Your task to perform on an android device: Open Google Maps Image 0: 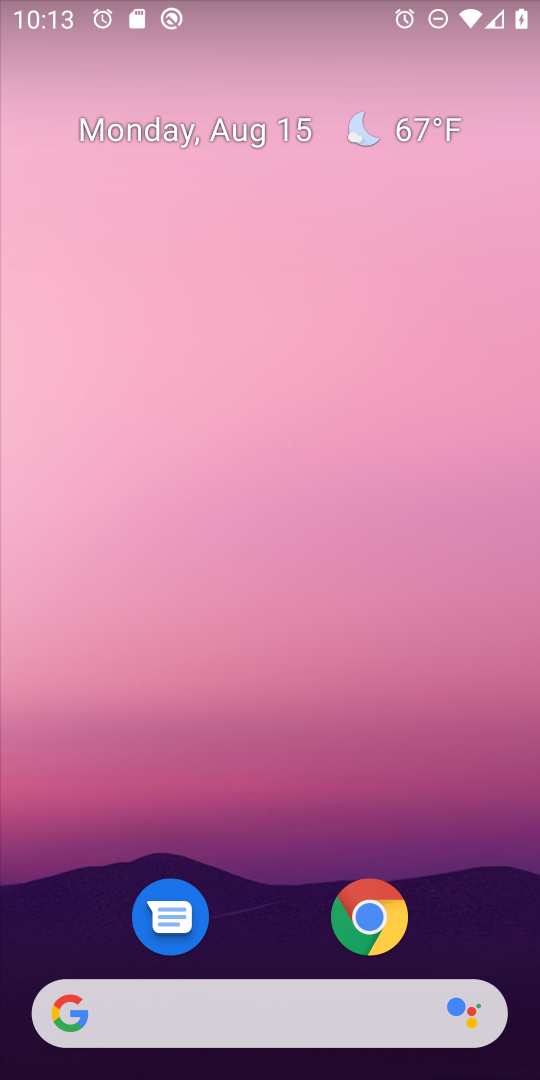
Step 0: drag from (268, 862) to (315, 0)
Your task to perform on an android device: Open Google Maps Image 1: 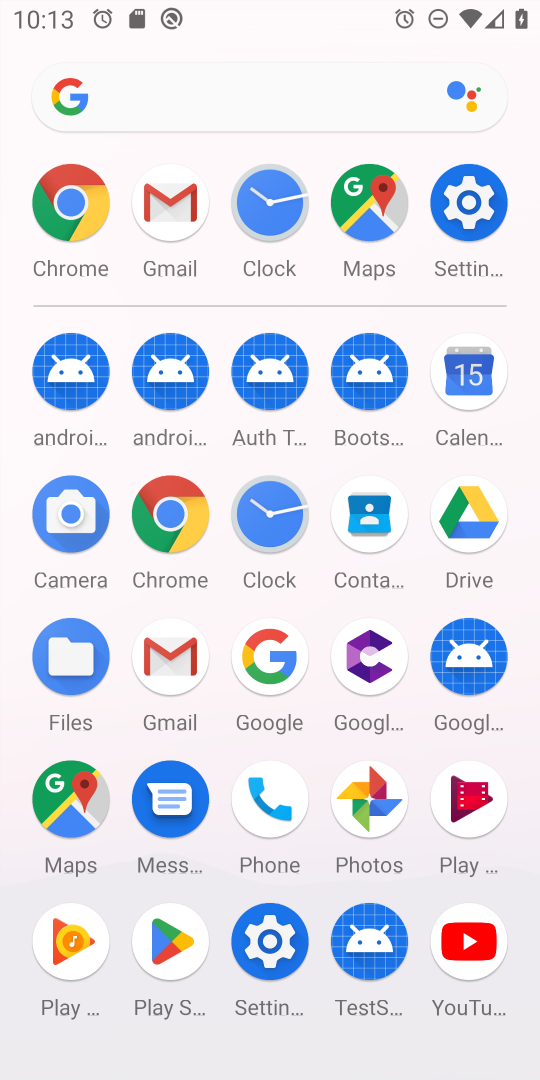
Step 1: click (366, 195)
Your task to perform on an android device: Open Google Maps Image 2: 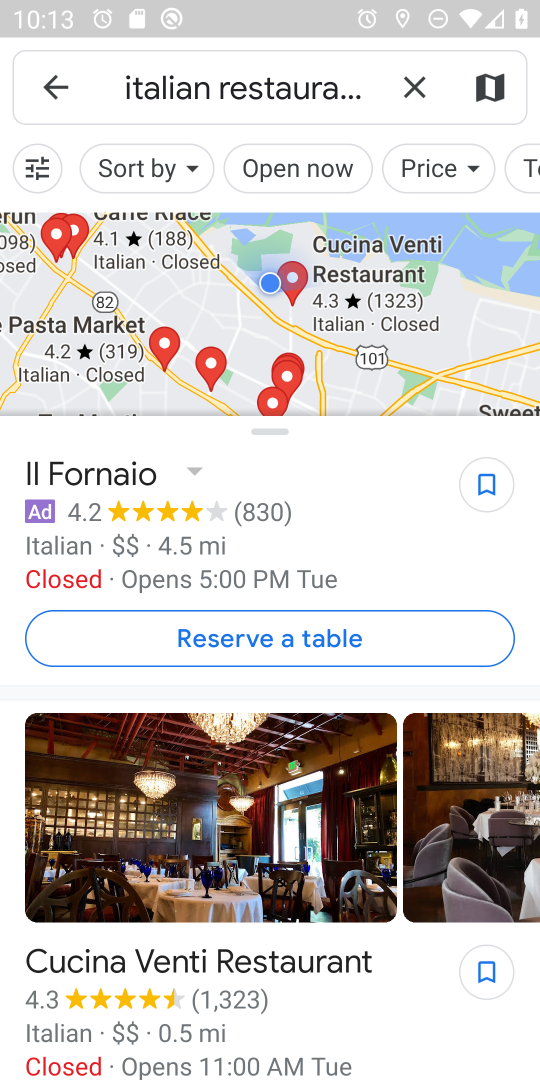
Step 2: click (406, 76)
Your task to perform on an android device: Open Google Maps Image 3: 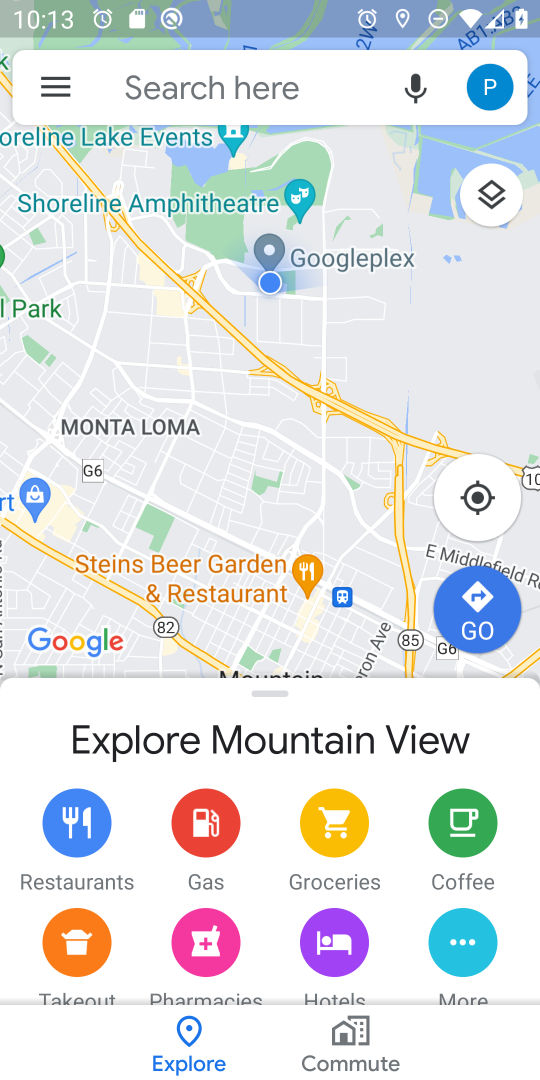
Step 3: task complete